Your task to perform on an android device: Go to internet settings Image 0: 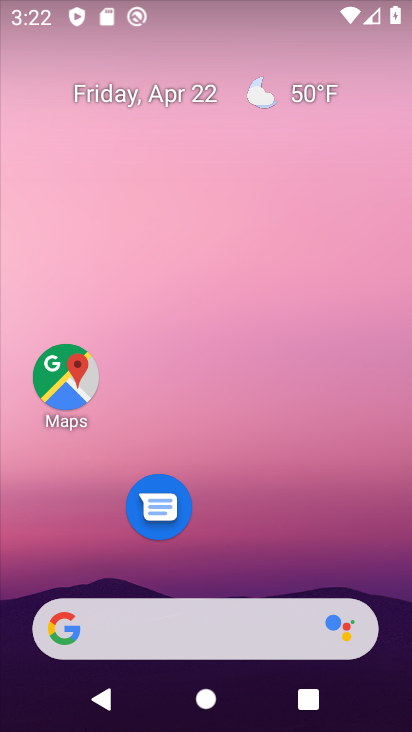
Step 0: drag from (243, 524) to (307, 53)
Your task to perform on an android device: Go to internet settings Image 1: 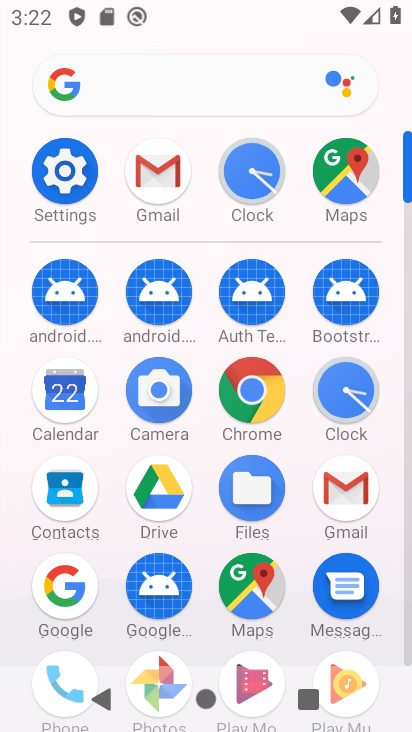
Step 1: click (63, 174)
Your task to perform on an android device: Go to internet settings Image 2: 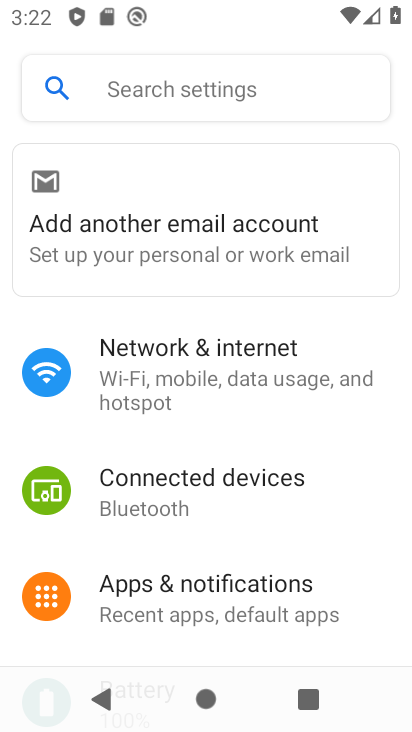
Step 2: click (219, 367)
Your task to perform on an android device: Go to internet settings Image 3: 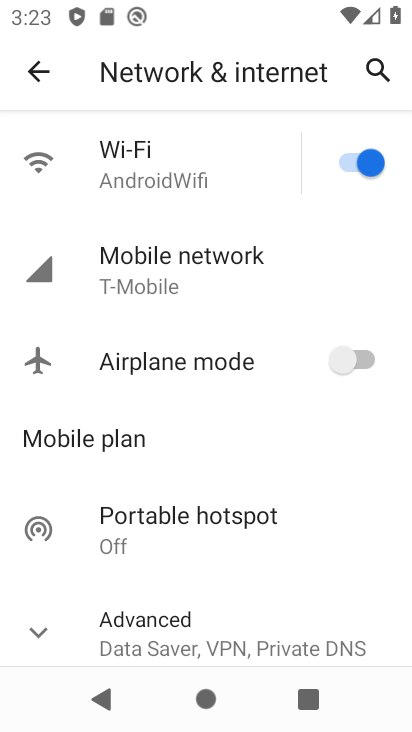
Step 3: task complete